Your task to perform on an android device: Play the last video I watched on Youtube Image 0: 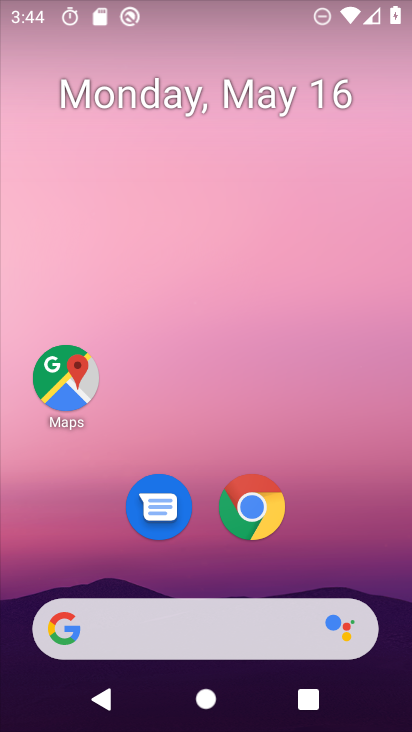
Step 0: drag from (345, 467) to (356, 138)
Your task to perform on an android device: Play the last video I watched on Youtube Image 1: 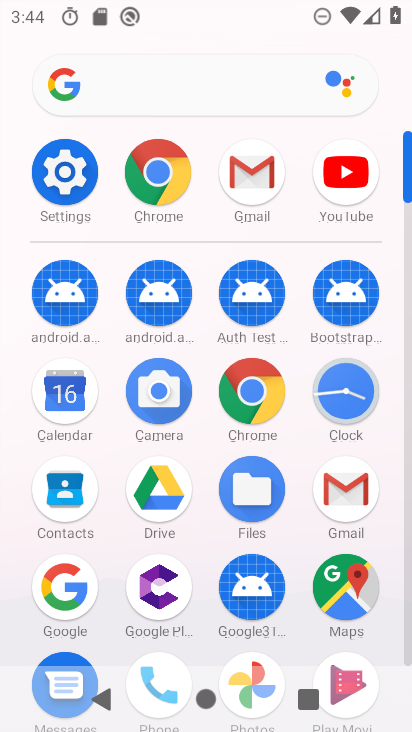
Step 1: click (362, 184)
Your task to perform on an android device: Play the last video I watched on Youtube Image 2: 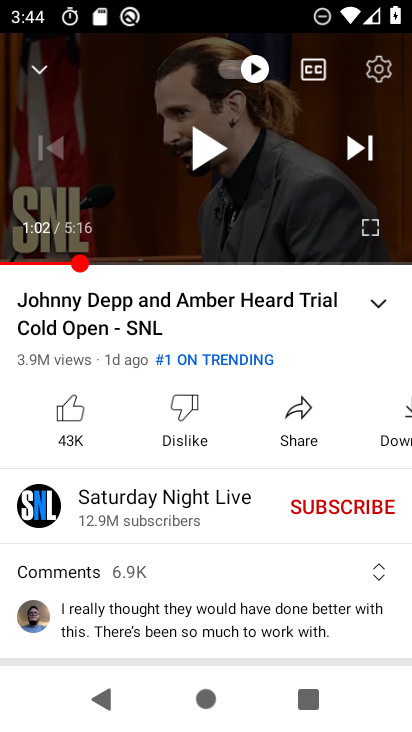
Step 2: click (184, 183)
Your task to perform on an android device: Play the last video I watched on Youtube Image 3: 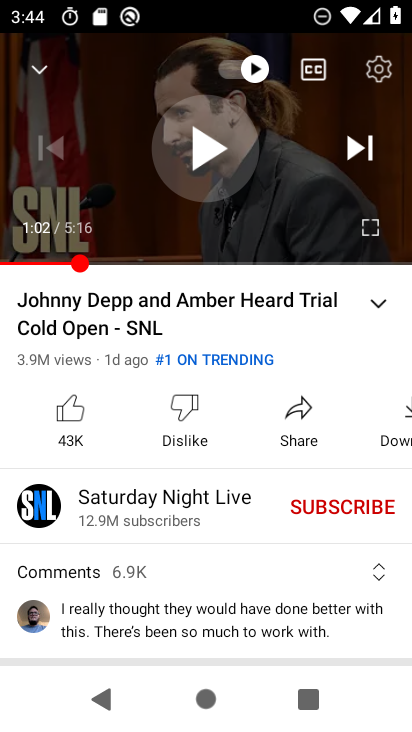
Step 3: click (193, 169)
Your task to perform on an android device: Play the last video I watched on Youtube Image 4: 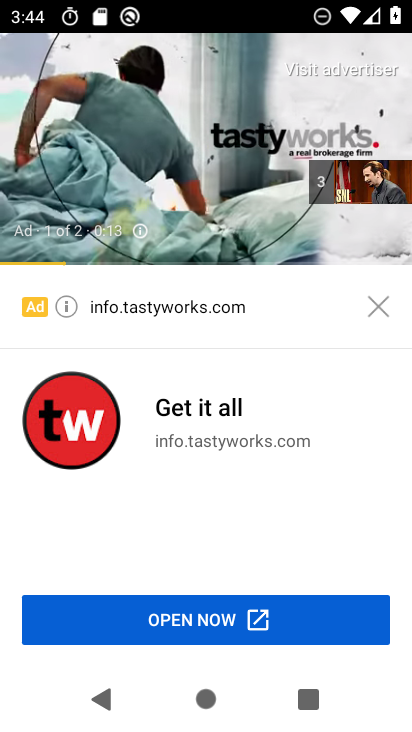
Step 4: task complete